Your task to perform on an android device: Open calendar and show me the second week of next month Image 0: 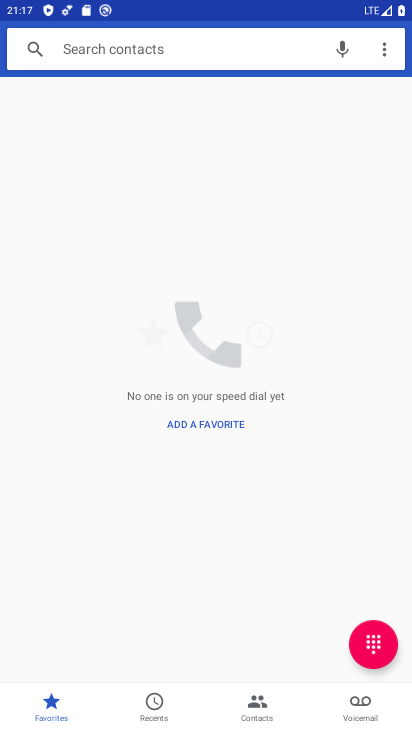
Step 0: press home button
Your task to perform on an android device: Open calendar and show me the second week of next month Image 1: 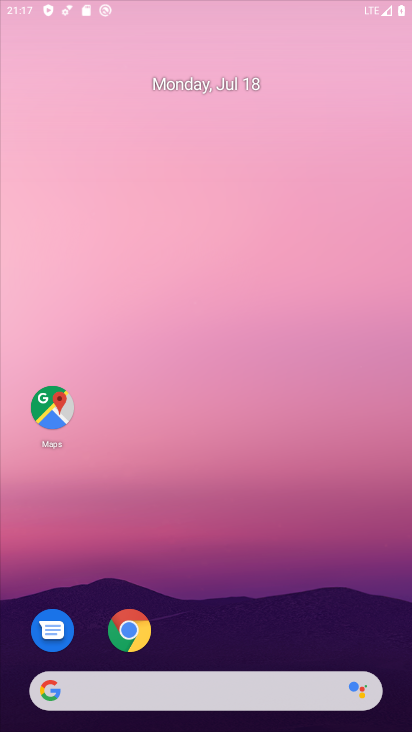
Step 1: drag from (263, 652) to (263, 293)
Your task to perform on an android device: Open calendar and show me the second week of next month Image 2: 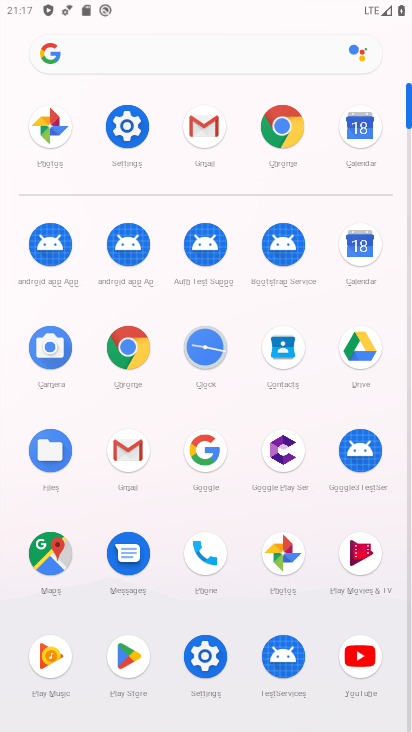
Step 2: click (358, 128)
Your task to perform on an android device: Open calendar and show me the second week of next month Image 3: 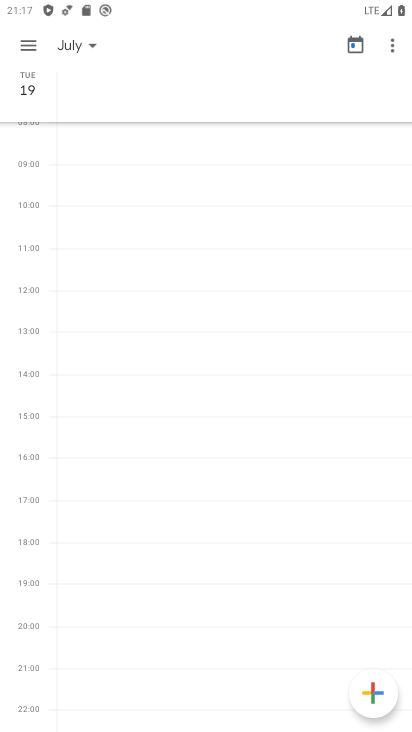
Step 3: click (28, 42)
Your task to perform on an android device: Open calendar and show me the second week of next month Image 4: 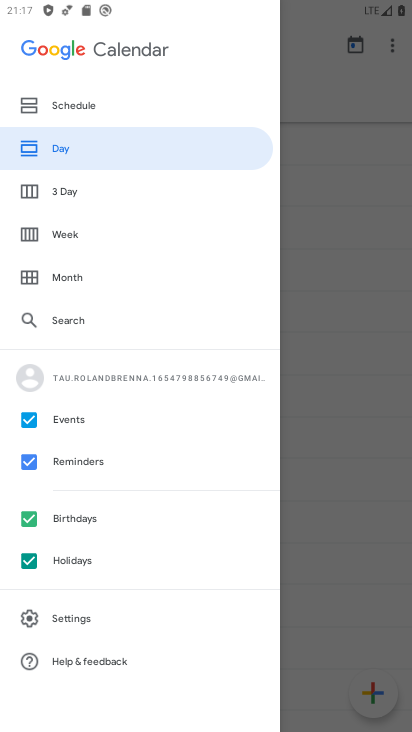
Step 4: click (97, 271)
Your task to perform on an android device: Open calendar and show me the second week of next month Image 5: 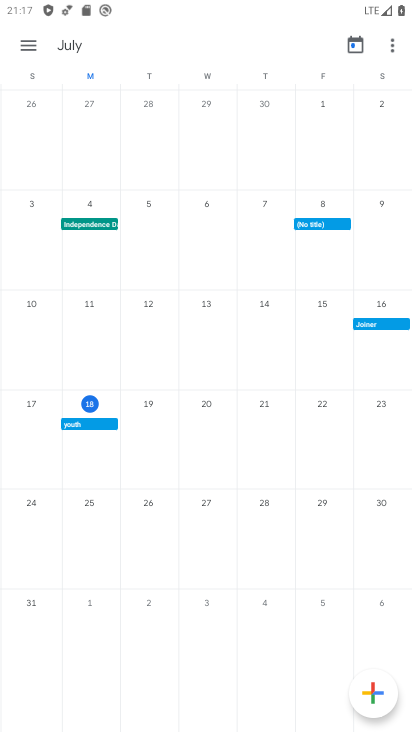
Step 5: drag from (293, 449) to (9, 295)
Your task to perform on an android device: Open calendar and show me the second week of next month Image 6: 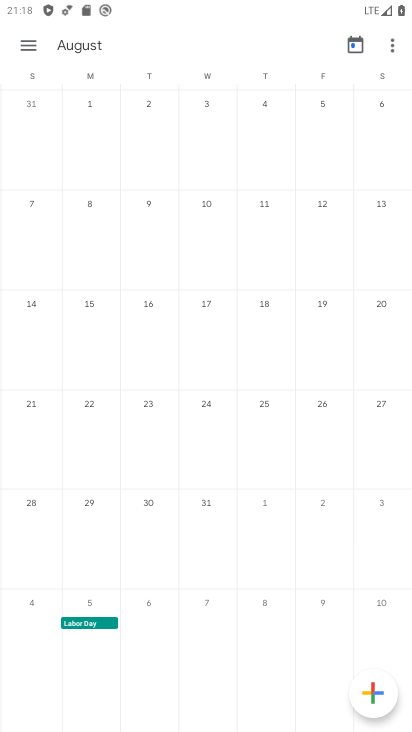
Step 6: click (30, 40)
Your task to perform on an android device: Open calendar and show me the second week of next month Image 7: 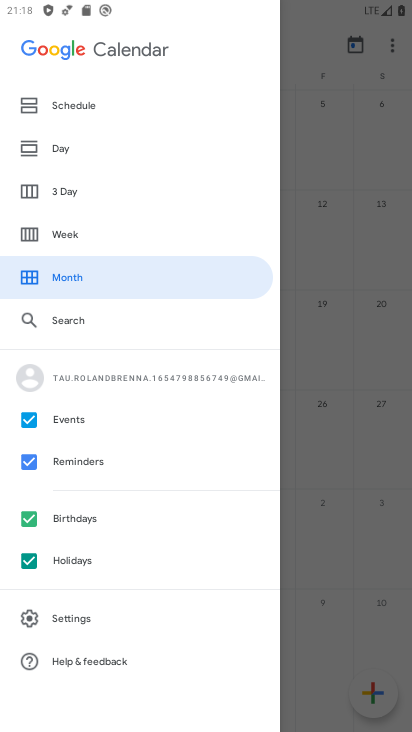
Step 7: click (112, 230)
Your task to perform on an android device: Open calendar and show me the second week of next month Image 8: 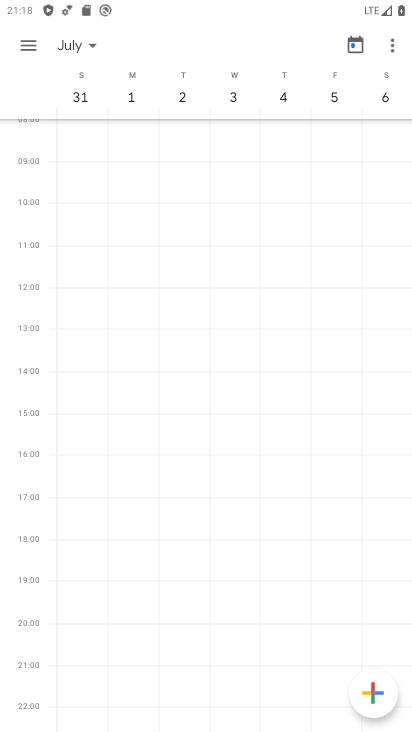
Step 8: click (27, 35)
Your task to perform on an android device: Open calendar and show me the second week of next month Image 9: 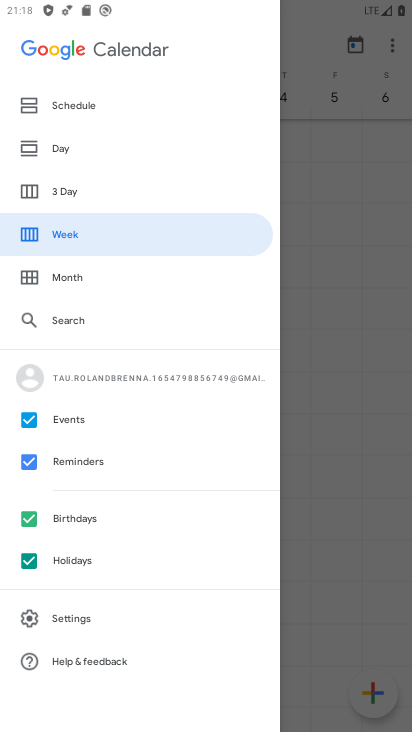
Step 9: click (99, 265)
Your task to perform on an android device: Open calendar and show me the second week of next month Image 10: 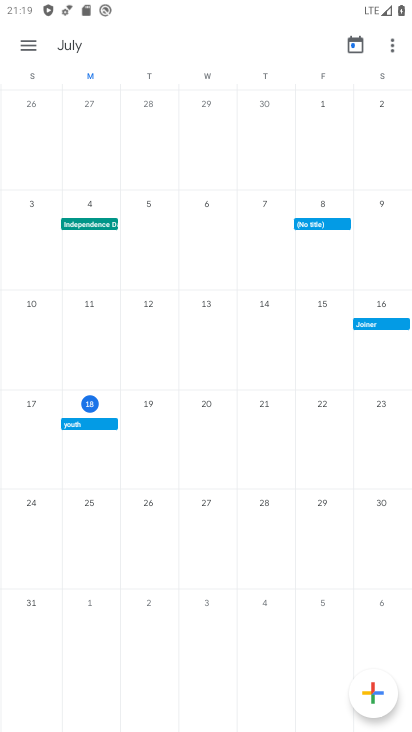
Step 10: task complete